Your task to perform on an android device: check google app version Image 0: 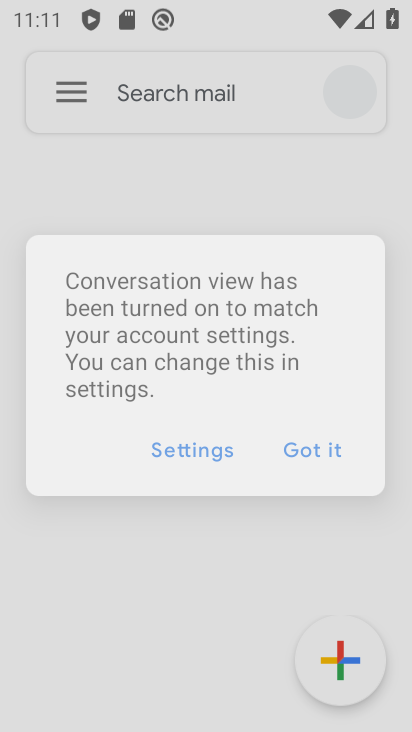
Step 0: press home button
Your task to perform on an android device: check google app version Image 1: 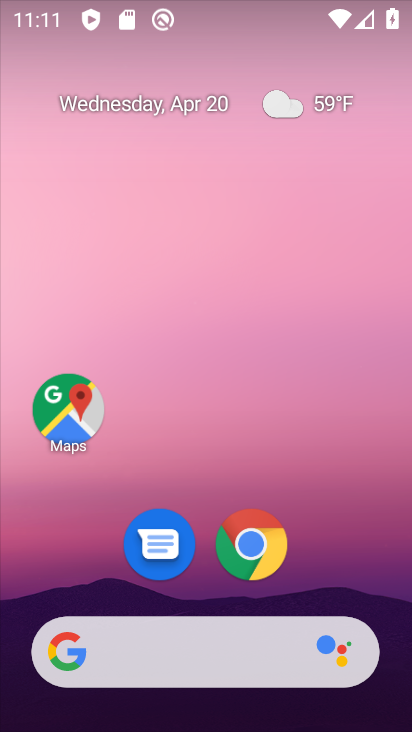
Step 1: drag from (230, 607) to (275, 125)
Your task to perform on an android device: check google app version Image 2: 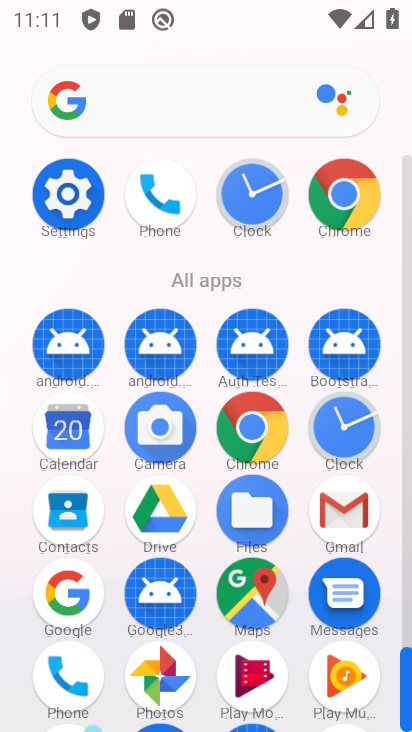
Step 2: click (82, 593)
Your task to perform on an android device: check google app version Image 3: 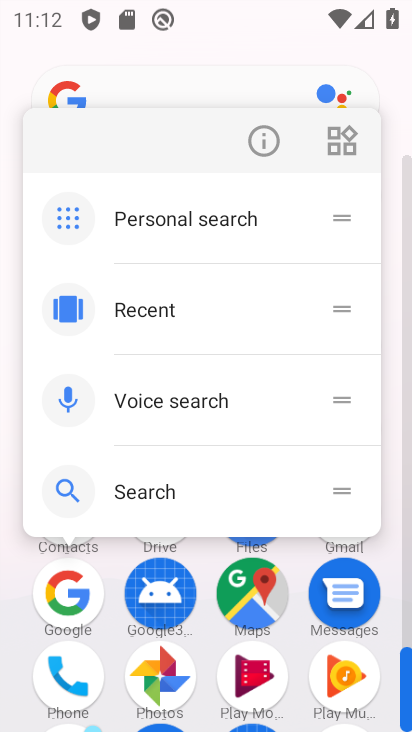
Step 3: click (263, 146)
Your task to perform on an android device: check google app version Image 4: 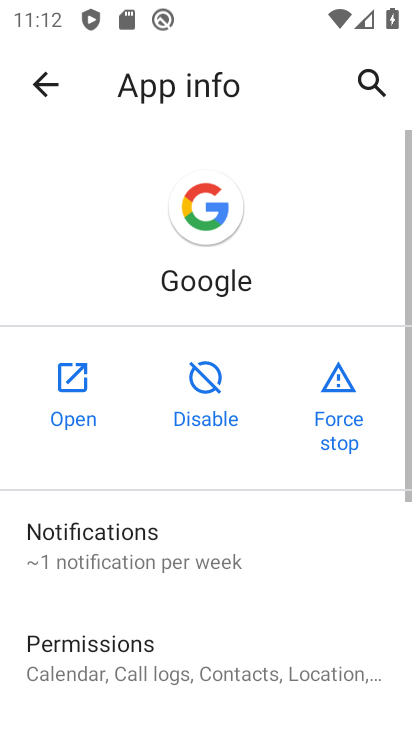
Step 4: drag from (220, 652) to (267, 199)
Your task to perform on an android device: check google app version Image 5: 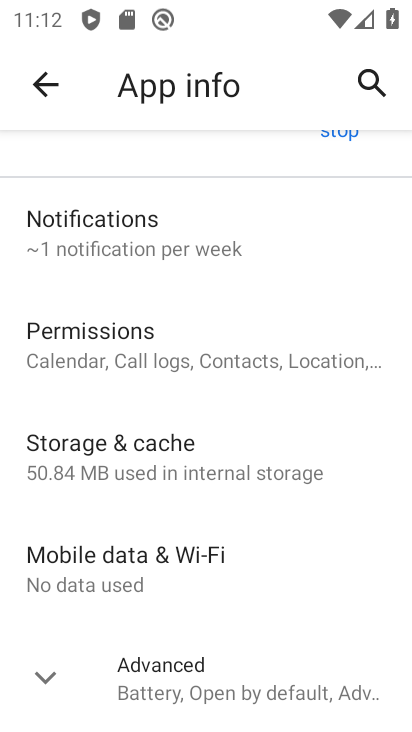
Step 5: drag from (278, 637) to (320, 205)
Your task to perform on an android device: check google app version Image 6: 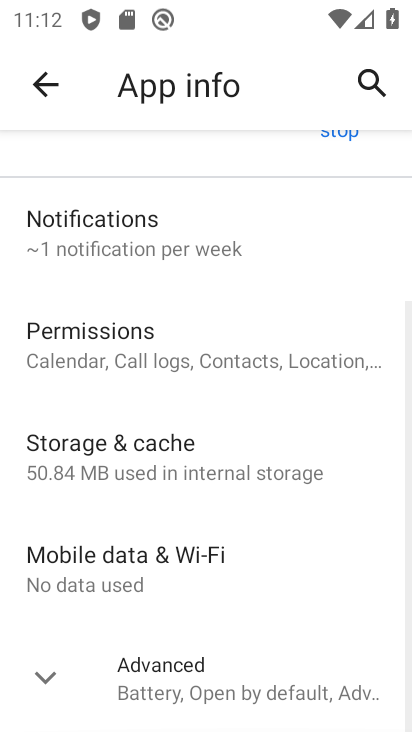
Step 6: click (127, 671)
Your task to perform on an android device: check google app version Image 7: 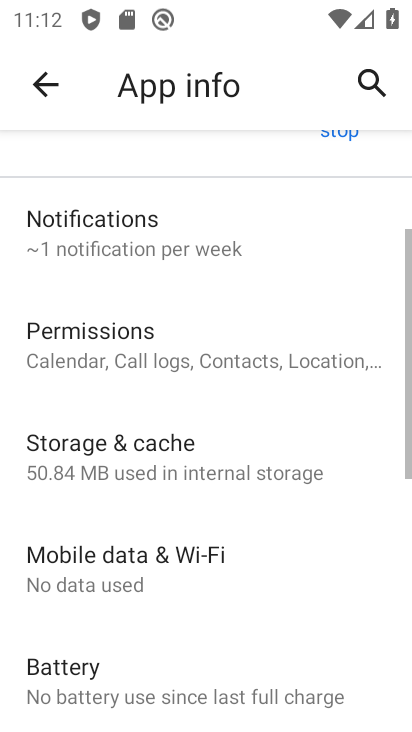
Step 7: task complete